Your task to perform on an android device: Go to wifi settings Image 0: 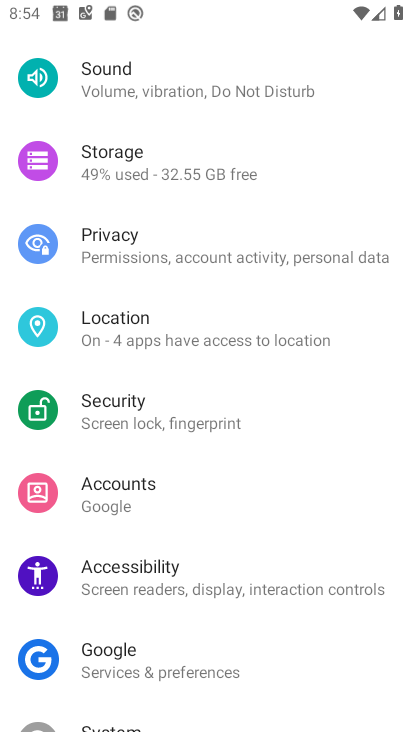
Step 0: drag from (143, 235) to (111, 708)
Your task to perform on an android device: Go to wifi settings Image 1: 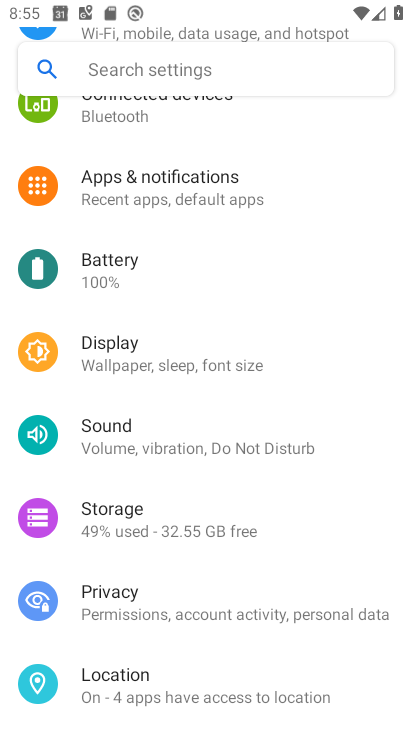
Step 1: drag from (223, 265) to (227, 717)
Your task to perform on an android device: Go to wifi settings Image 2: 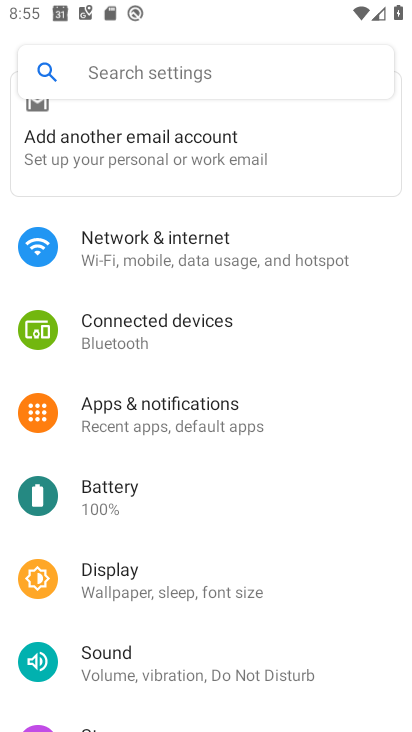
Step 2: click (234, 253)
Your task to perform on an android device: Go to wifi settings Image 3: 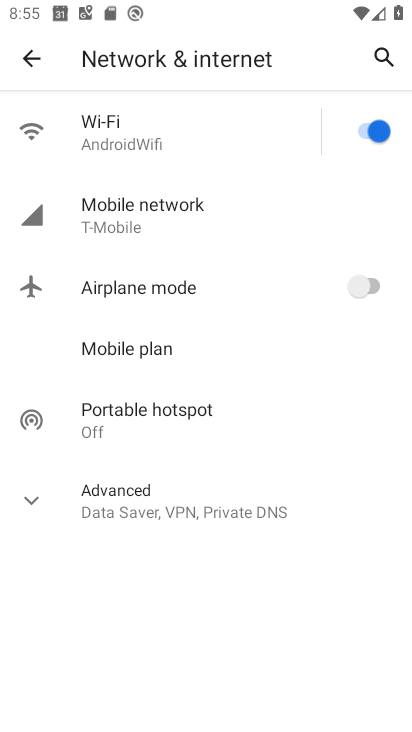
Step 3: click (228, 129)
Your task to perform on an android device: Go to wifi settings Image 4: 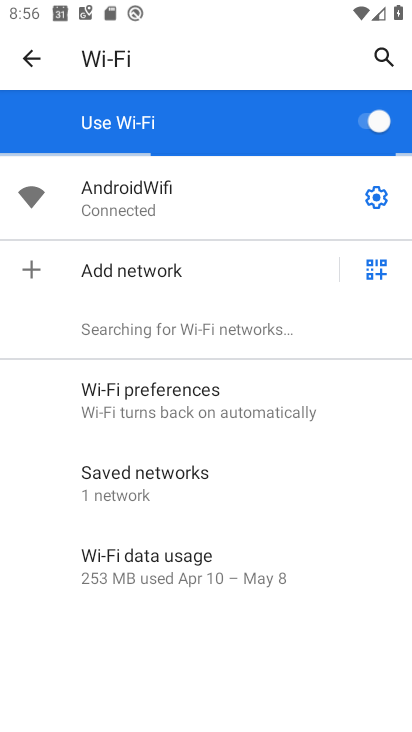
Step 4: task complete